Your task to perform on an android device: Search for sushi restaurants on Maps Image 0: 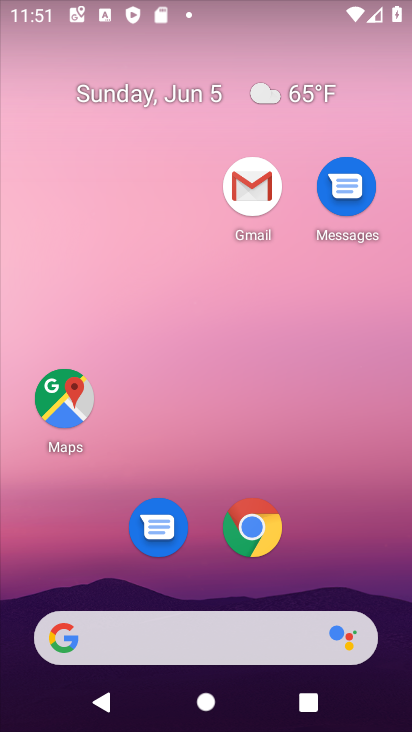
Step 0: click (43, 403)
Your task to perform on an android device: Search for sushi restaurants on Maps Image 1: 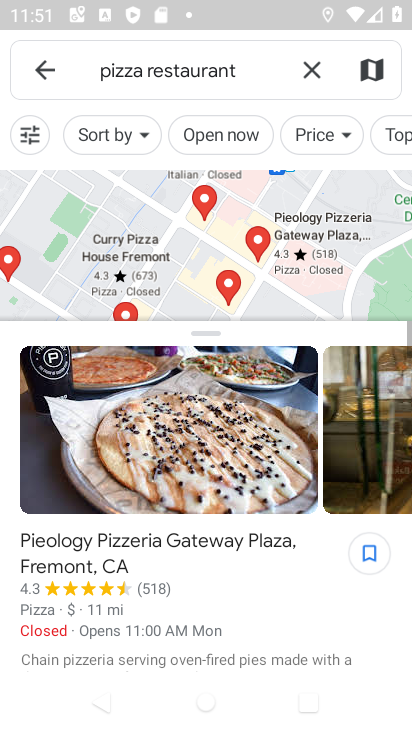
Step 1: click (309, 72)
Your task to perform on an android device: Search for sushi restaurants on Maps Image 2: 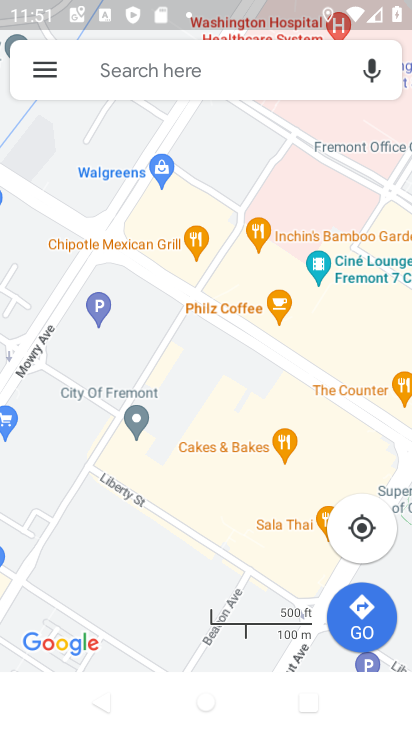
Step 2: click (232, 73)
Your task to perform on an android device: Search for sushi restaurants on Maps Image 3: 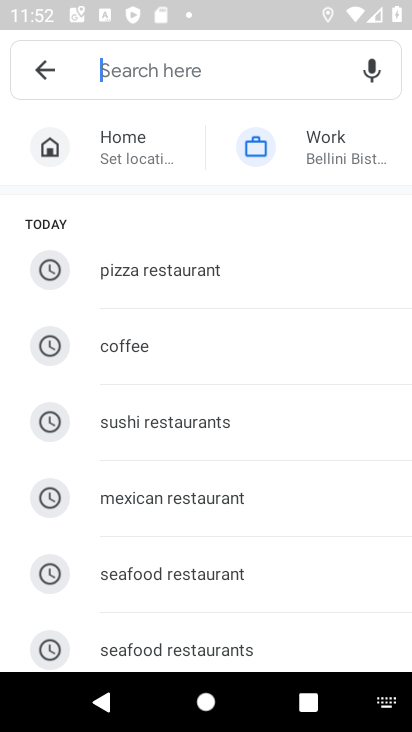
Step 3: click (165, 431)
Your task to perform on an android device: Search for sushi restaurants on Maps Image 4: 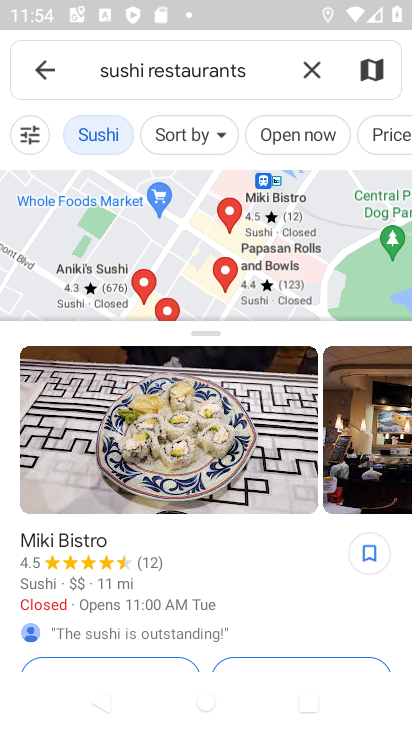
Step 4: task complete